Your task to perform on an android device: What's the weather going to be tomorrow? Image 0: 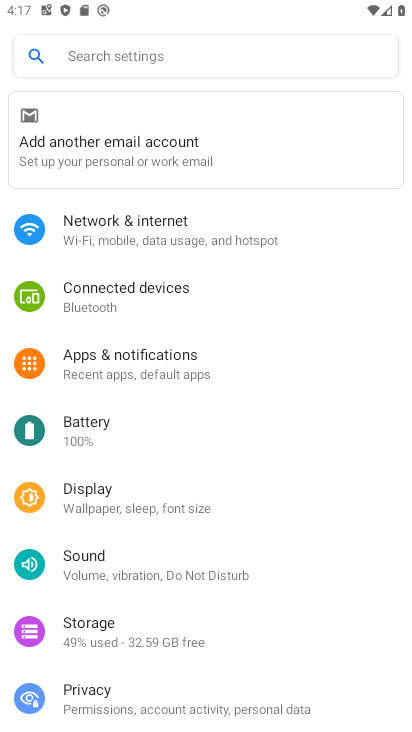
Step 0: press home button
Your task to perform on an android device: What's the weather going to be tomorrow? Image 1: 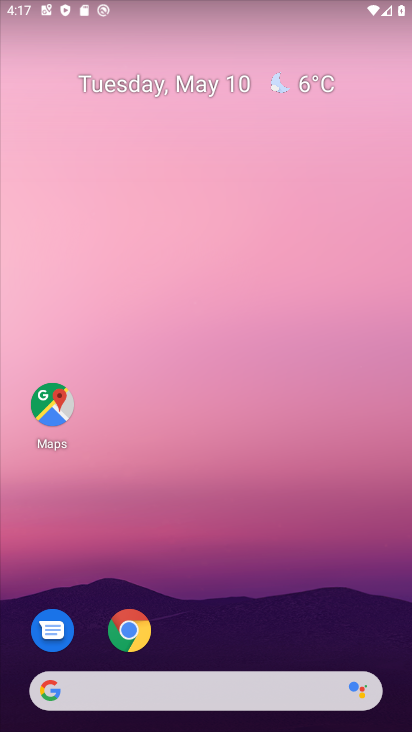
Step 1: drag from (347, 648) to (238, 210)
Your task to perform on an android device: What's the weather going to be tomorrow? Image 2: 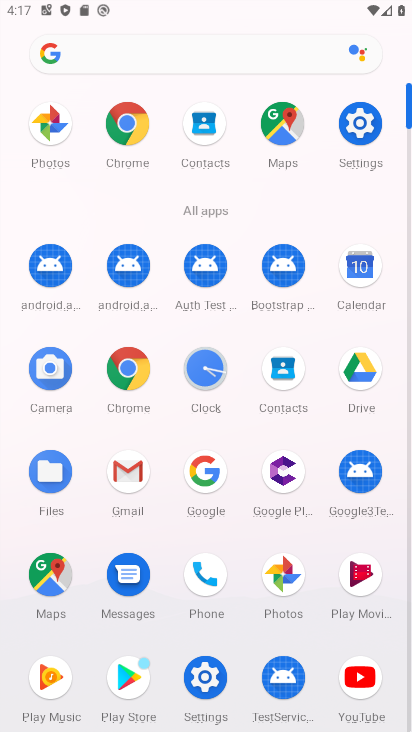
Step 2: press home button
Your task to perform on an android device: What's the weather going to be tomorrow? Image 3: 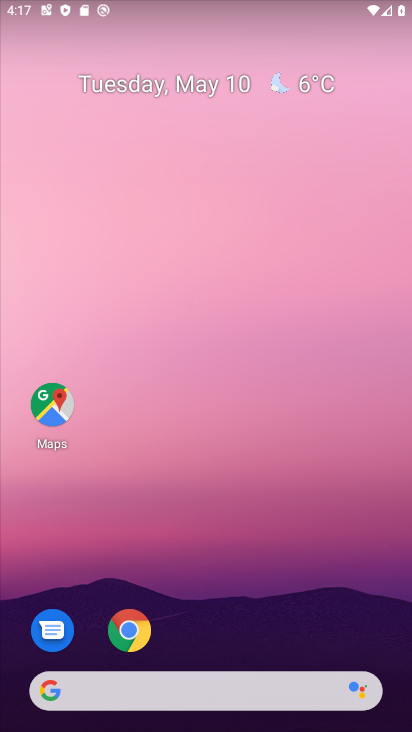
Step 3: click (293, 95)
Your task to perform on an android device: What's the weather going to be tomorrow? Image 4: 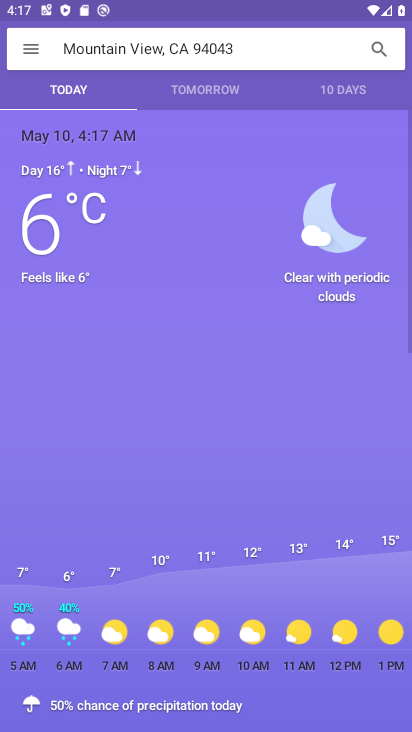
Step 4: click (240, 93)
Your task to perform on an android device: What's the weather going to be tomorrow? Image 5: 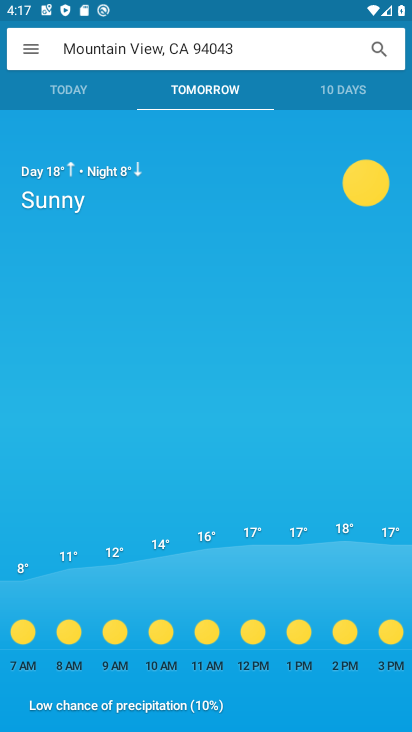
Step 5: task complete